Your task to perform on an android device: change notification settings in the gmail app Image 0: 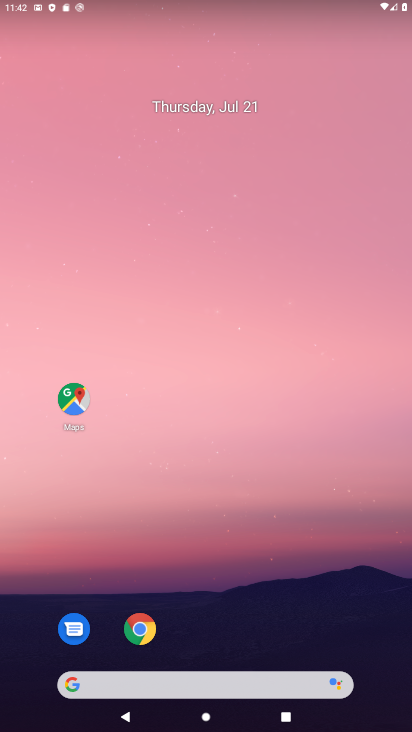
Step 0: drag from (265, 666) to (171, 172)
Your task to perform on an android device: change notification settings in the gmail app Image 1: 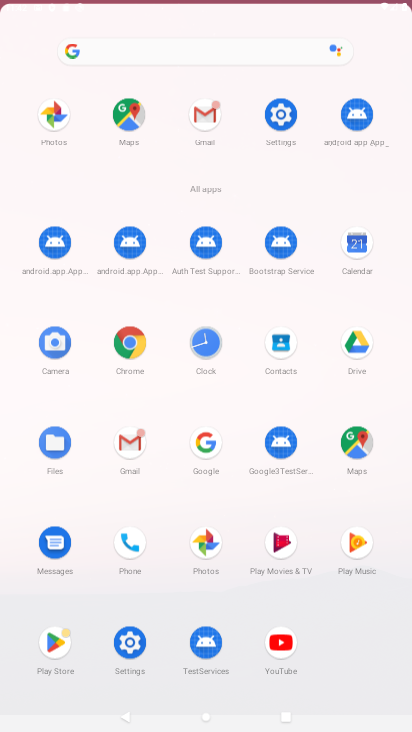
Step 1: drag from (214, 435) to (166, 121)
Your task to perform on an android device: change notification settings in the gmail app Image 2: 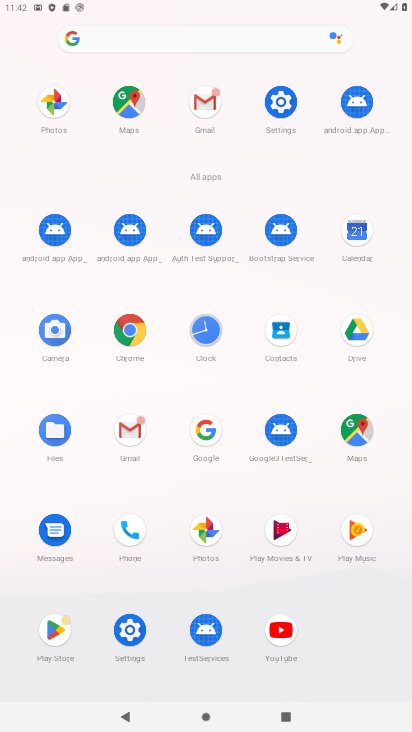
Step 2: click (125, 427)
Your task to perform on an android device: change notification settings in the gmail app Image 3: 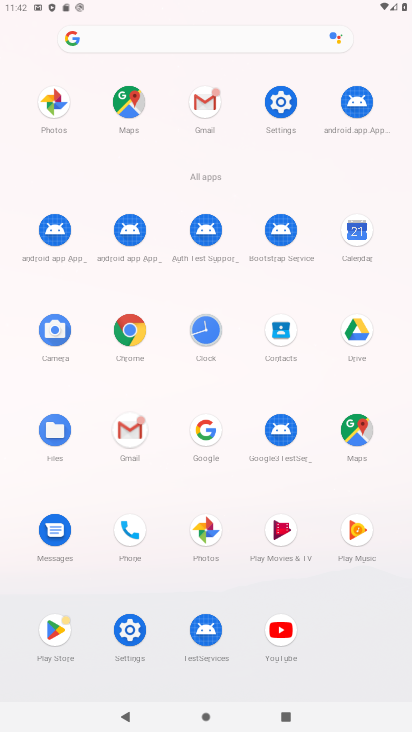
Step 3: click (126, 425)
Your task to perform on an android device: change notification settings in the gmail app Image 4: 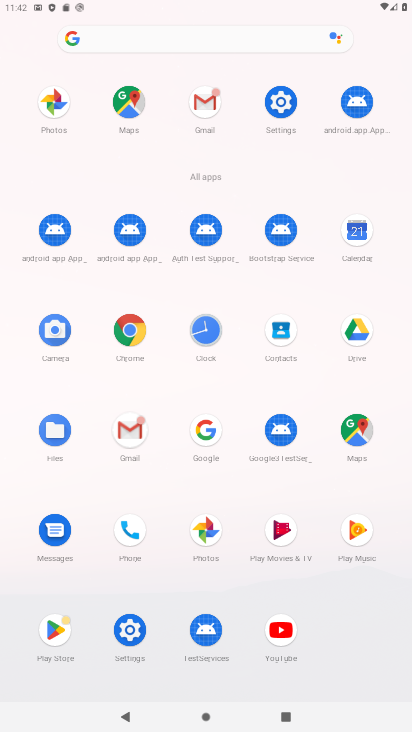
Step 4: click (127, 425)
Your task to perform on an android device: change notification settings in the gmail app Image 5: 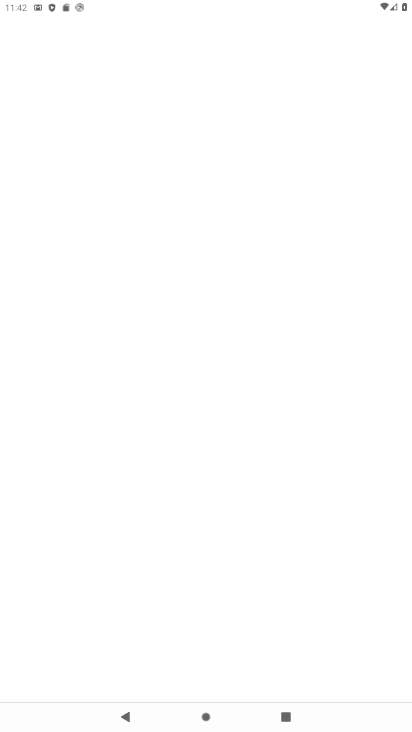
Step 5: click (129, 425)
Your task to perform on an android device: change notification settings in the gmail app Image 6: 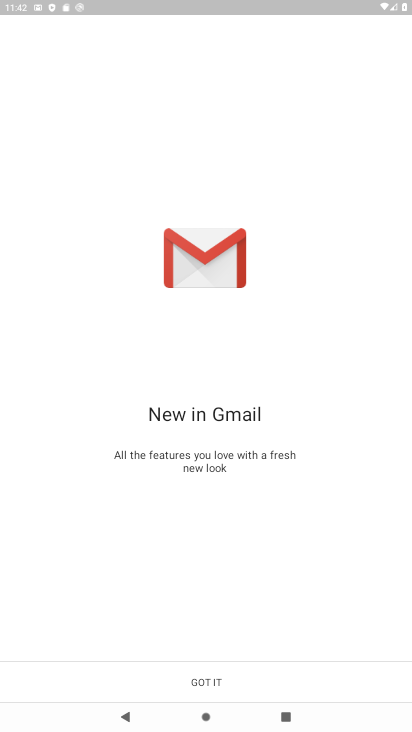
Step 6: click (210, 678)
Your task to perform on an android device: change notification settings in the gmail app Image 7: 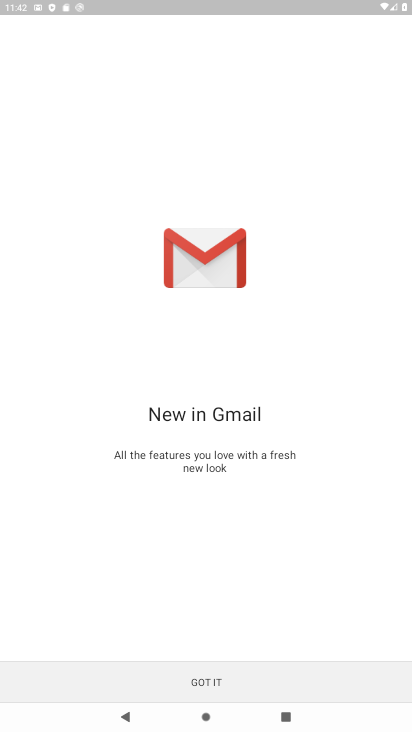
Step 7: click (210, 678)
Your task to perform on an android device: change notification settings in the gmail app Image 8: 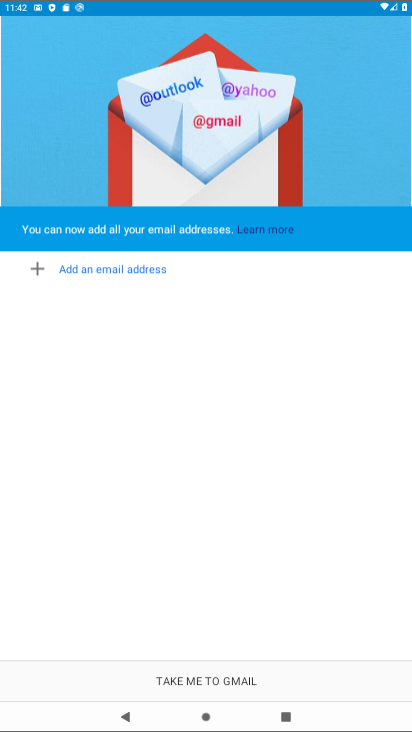
Step 8: click (209, 676)
Your task to perform on an android device: change notification settings in the gmail app Image 9: 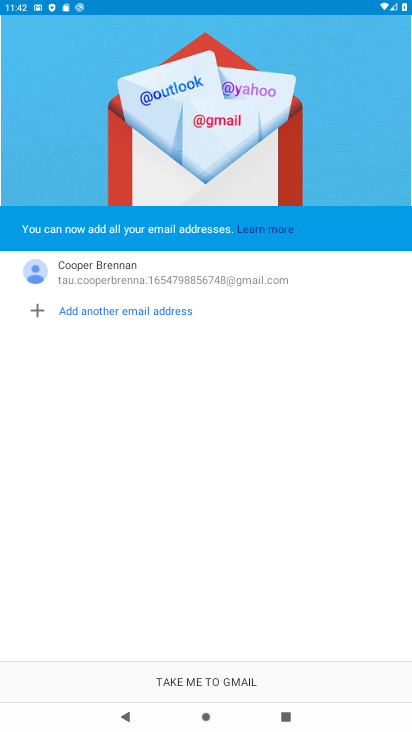
Step 9: click (208, 676)
Your task to perform on an android device: change notification settings in the gmail app Image 10: 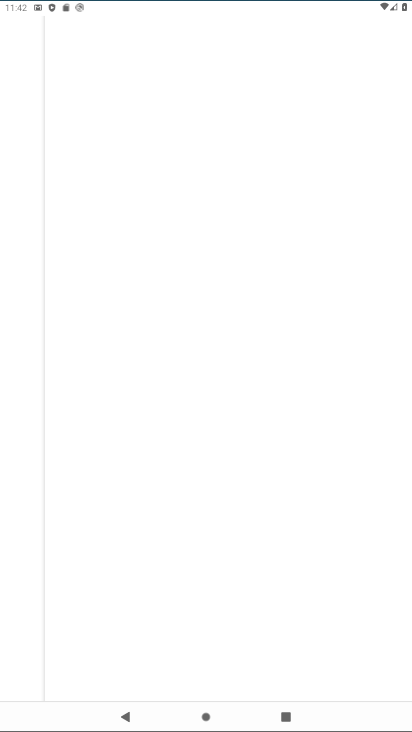
Step 10: click (213, 675)
Your task to perform on an android device: change notification settings in the gmail app Image 11: 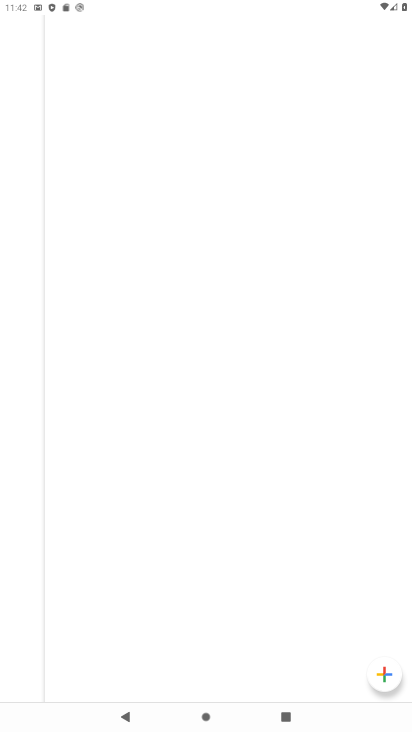
Step 11: click (231, 687)
Your task to perform on an android device: change notification settings in the gmail app Image 12: 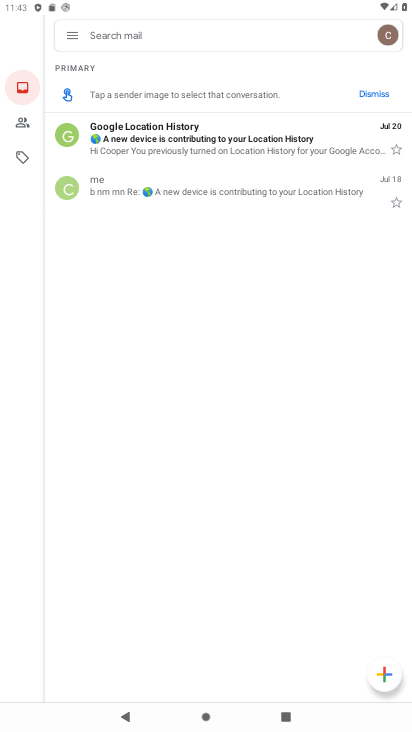
Step 12: click (70, 23)
Your task to perform on an android device: change notification settings in the gmail app Image 13: 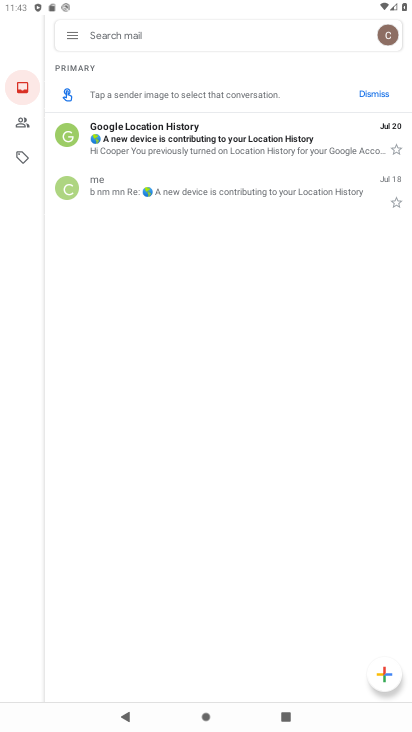
Step 13: click (73, 39)
Your task to perform on an android device: change notification settings in the gmail app Image 14: 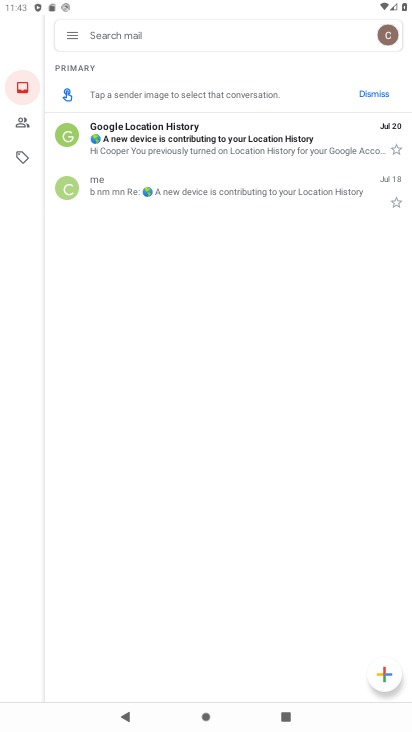
Step 14: click (75, 36)
Your task to perform on an android device: change notification settings in the gmail app Image 15: 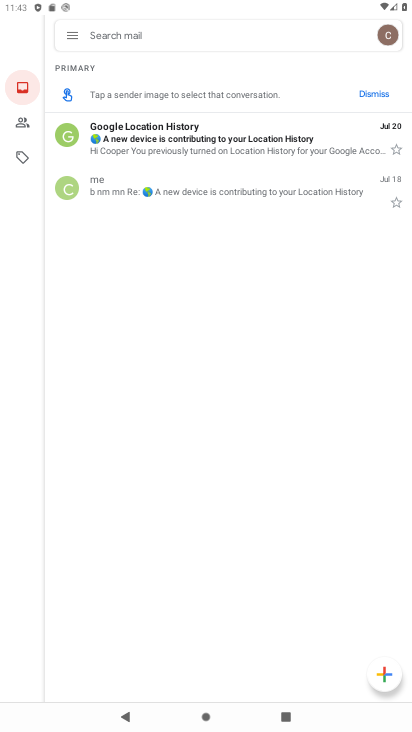
Step 15: click (73, 39)
Your task to perform on an android device: change notification settings in the gmail app Image 16: 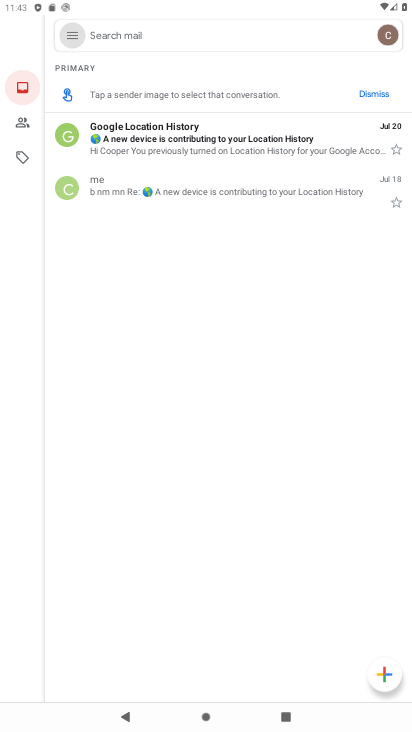
Step 16: click (73, 39)
Your task to perform on an android device: change notification settings in the gmail app Image 17: 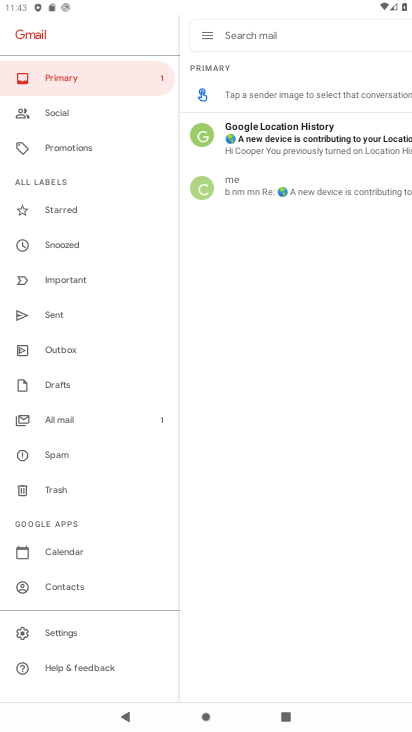
Step 17: click (65, 627)
Your task to perform on an android device: change notification settings in the gmail app Image 18: 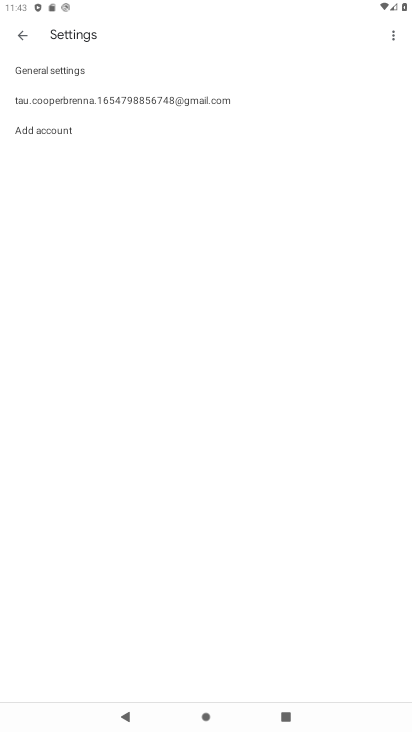
Step 18: click (61, 99)
Your task to perform on an android device: change notification settings in the gmail app Image 19: 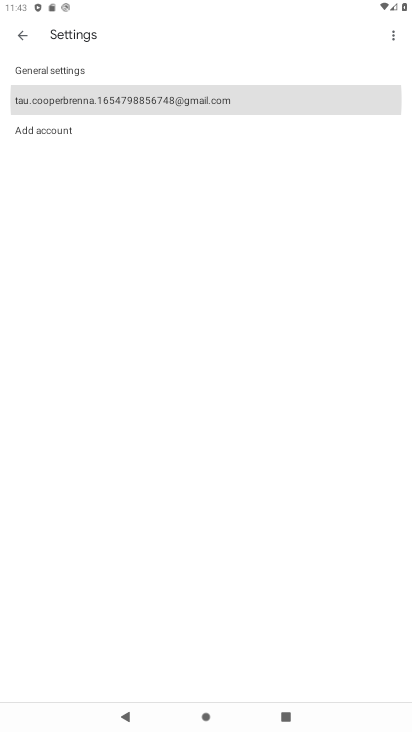
Step 19: click (60, 100)
Your task to perform on an android device: change notification settings in the gmail app Image 20: 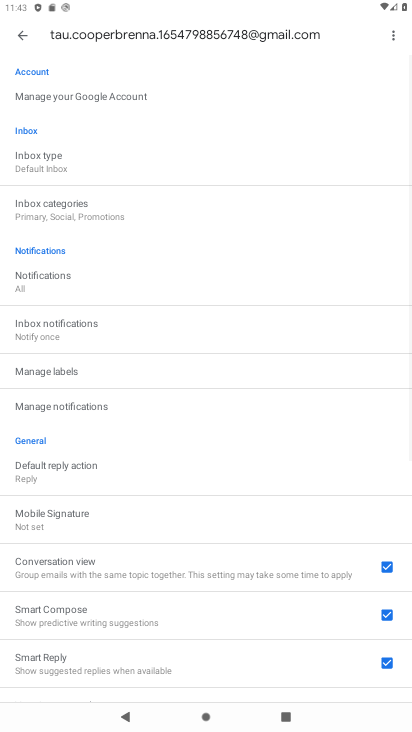
Step 20: click (49, 259)
Your task to perform on an android device: change notification settings in the gmail app Image 21: 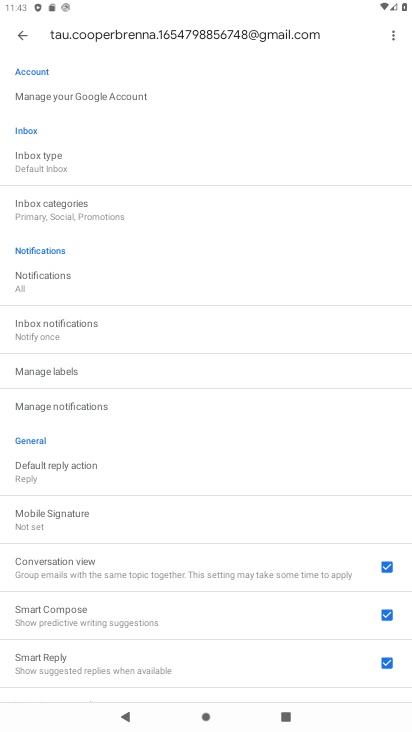
Step 21: click (48, 260)
Your task to perform on an android device: change notification settings in the gmail app Image 22: 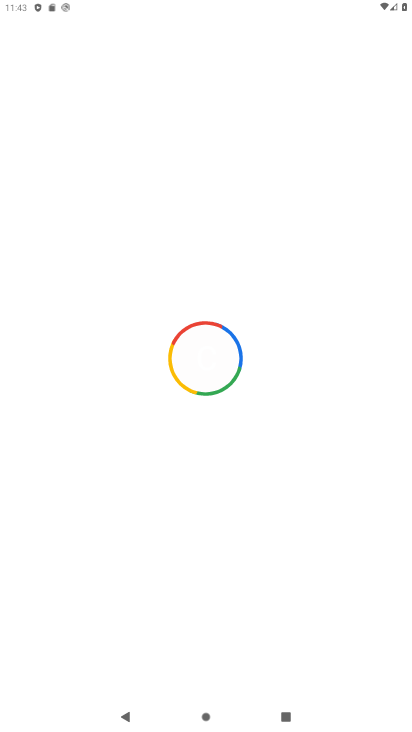
Step 22: press back button
Your task to perform on an android device: change notification settings in the gmail app Image 23: 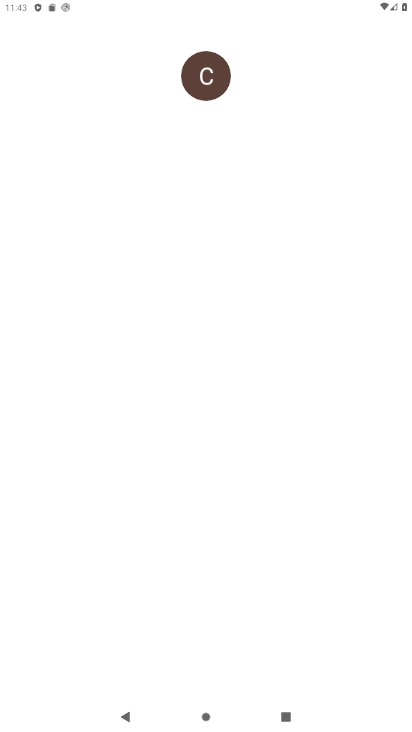
Step 23: press back button
Your task to perform on an android device: change notification settings in the gmail app Image 24: 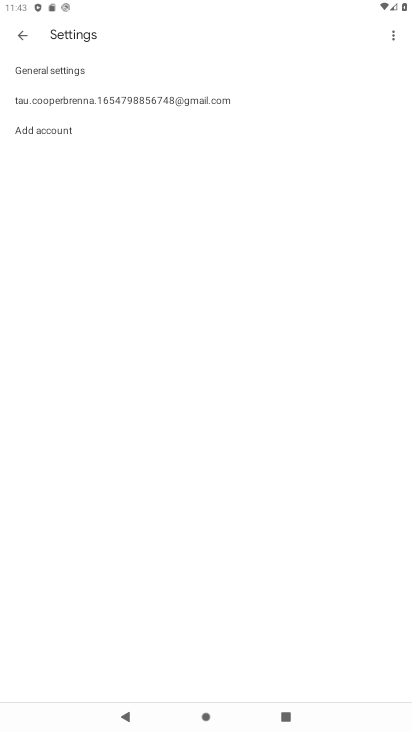
Step 24: click (48, 99)
Your task to perform on an android device: change notification settings in the gmail app Image 25: 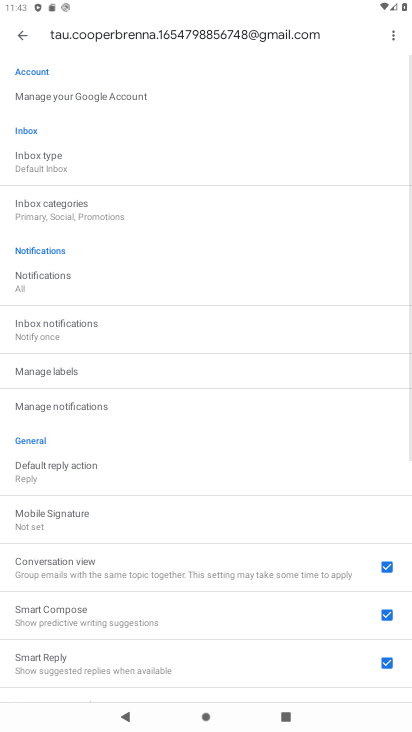
Step 25: click (41, 104)
Your task to perform on an android device: change notification settings in the gmail app Image 26: 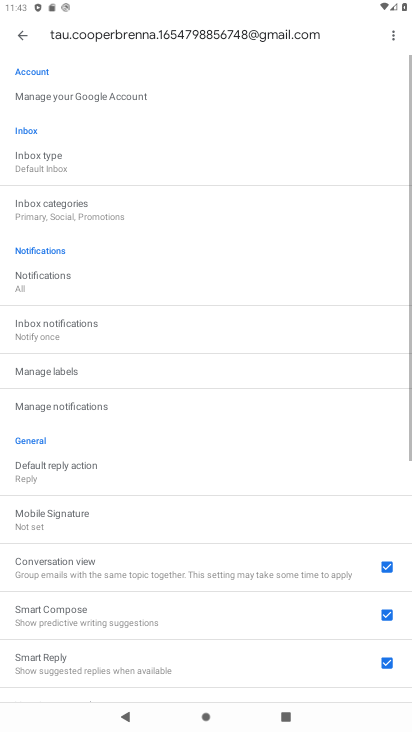
Step 26: click (32, 270)
Your task to perform on an android device: change notification settings in the gmail app Image 27: 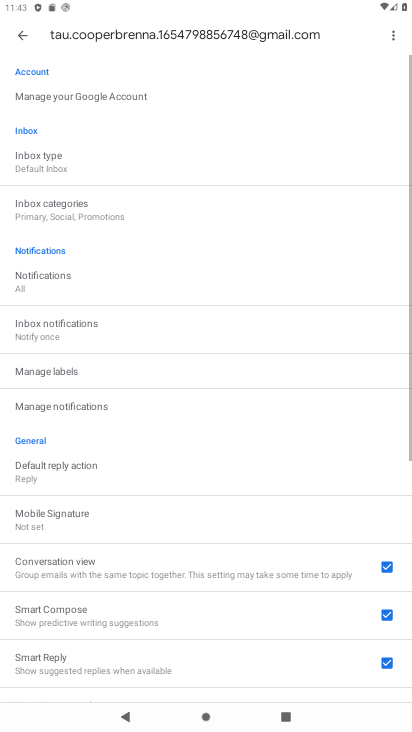
Step 27: click (32, 273)
Your task to perform on an android device: change notification settings in the gmail app Image 28: 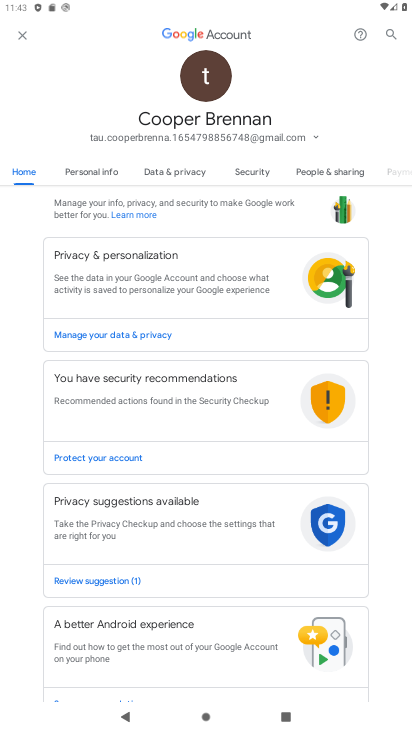
Step 28: click (33, 274)
Your task to perform on an android device: change notification settings in the gmail app Image 29: 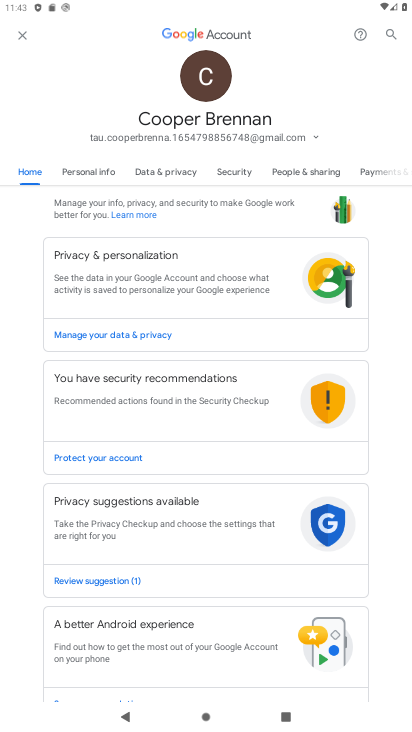
Step 29: click (24, 32)
Your task to perform on an android device: change notification settings in the gmail app Image 30: 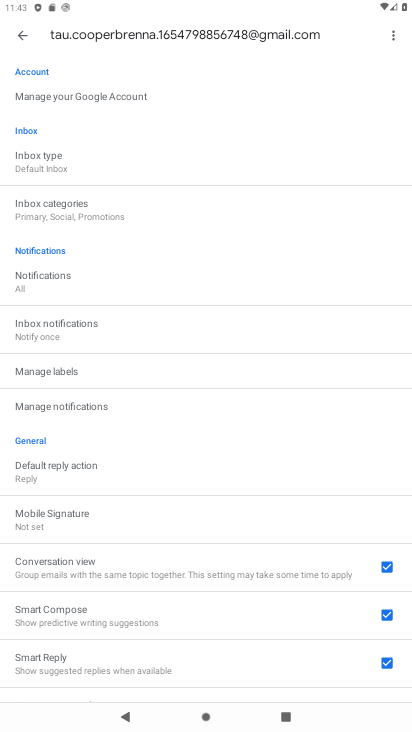
Step 30: click (48, 278)
Your task to perform on an android device: change notification settings in the gmail app Image 31: 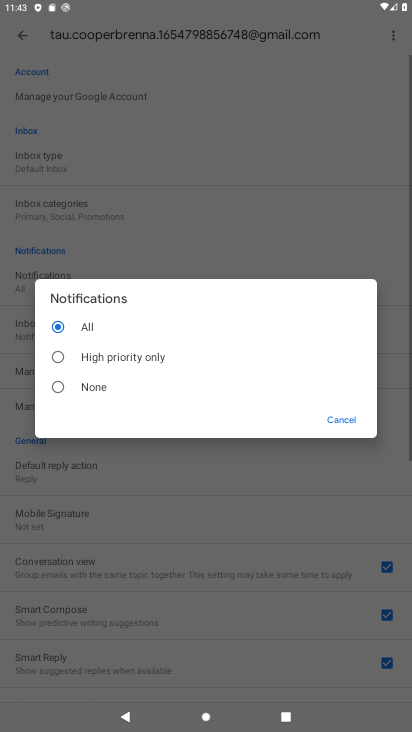
Step 31: click (52, 278)
Your task to perform on an android device: change notification settings in the gmail app Image 32: 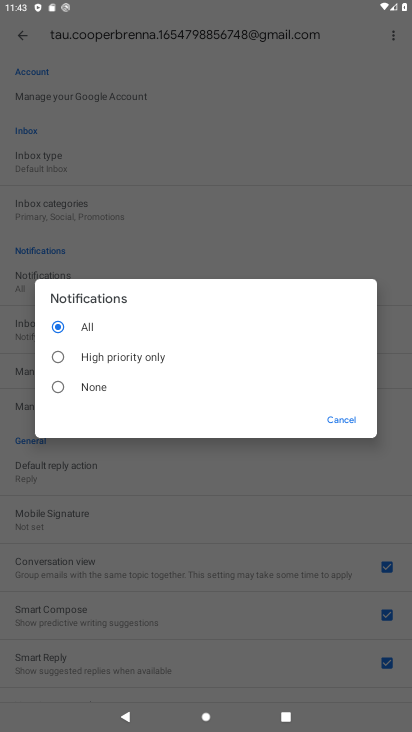
Step 32: click (52, 354)
Your task to perform on an android device: change notification settings in the gmail app Image 33: 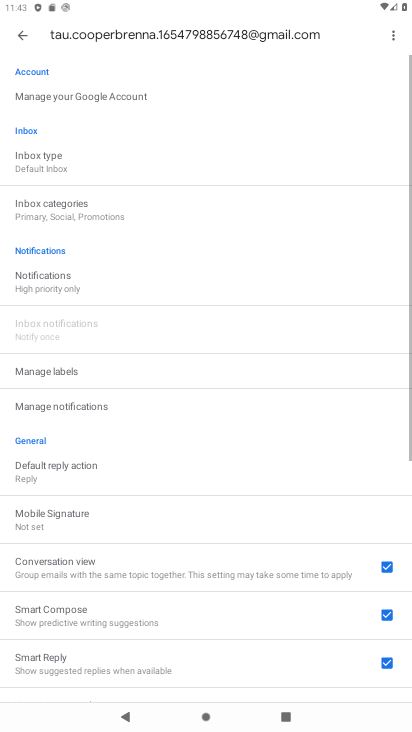
Step 33: click (57, 353)
Your task to perform on an android device: change notification settings in the gmail app Image 34: 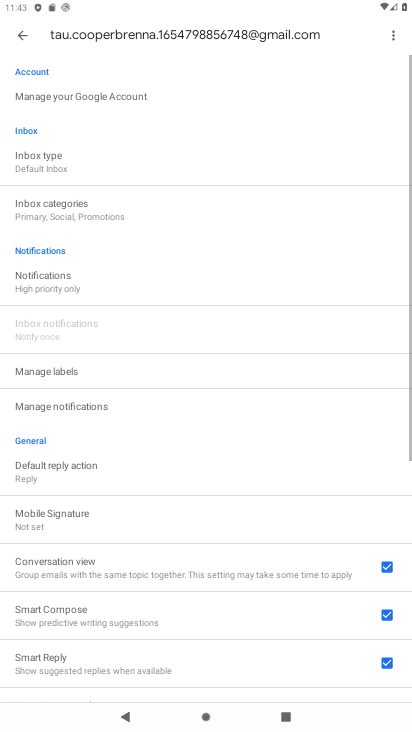
Step 34: click (60, 354)
Your task to perform on an android device: change notification settings in the gmail app Image 35: 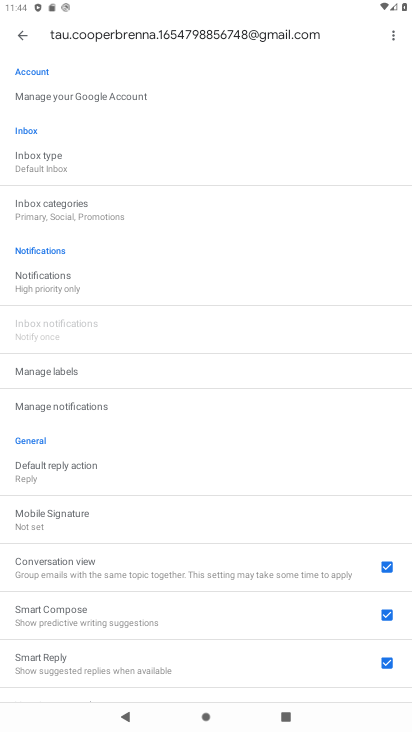
Step 35: task complete